Your task to perform on an android device: Search for vegetarian restaurants on Maps Image 0: 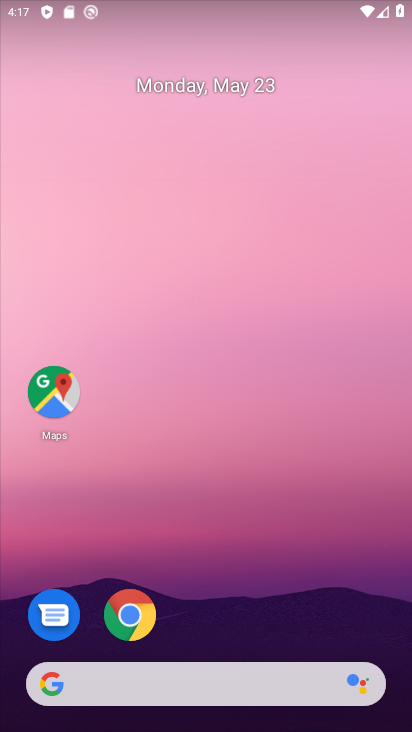
Step 0: click (58, 383)
Your task to perform on an android device: Search for vegetarian restaurants on Maps Image 1: 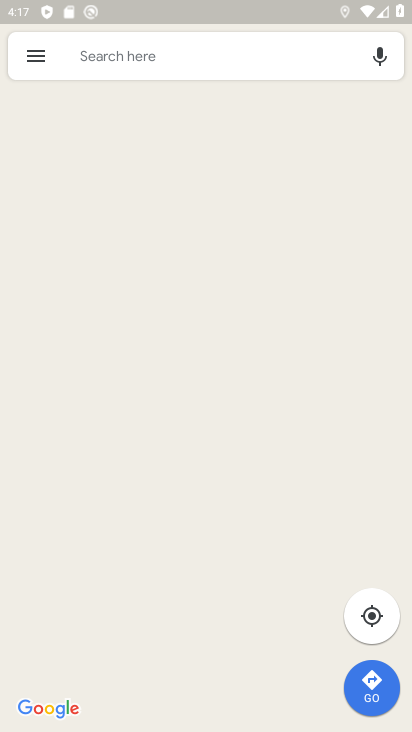
Step 1: click (160, 71)
Your task to perform on an android device: Search for vegetarian restaurants on Maps Image 2: 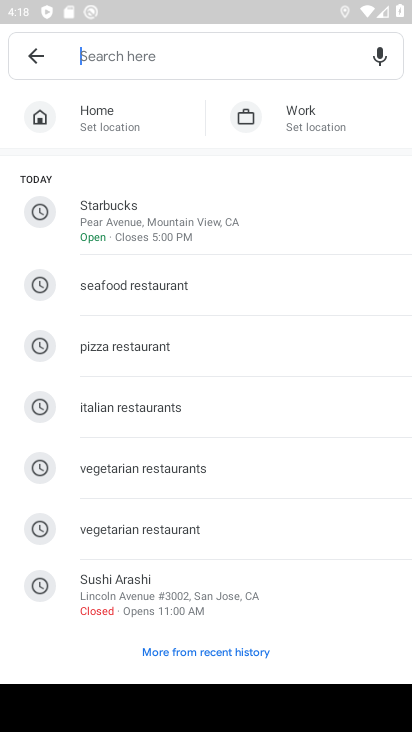
Step 2: click (157, 489)
Your task to perform on an android device: Search for vegetarian restaurants on Maps Image 3: 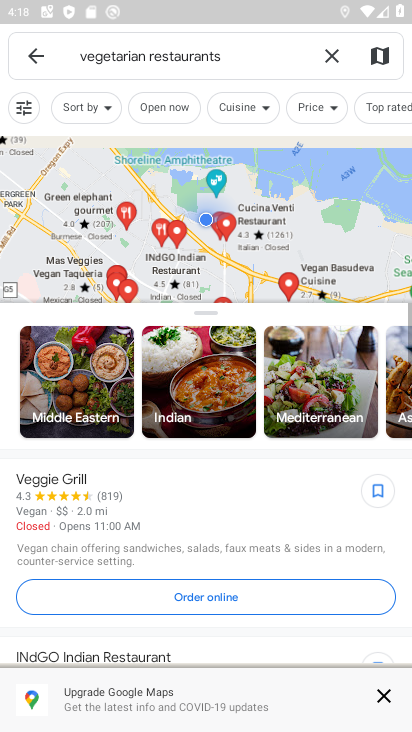
Step 3: task complete